Your task to perform on an android device: delete a single message in the gmail app Image 0: 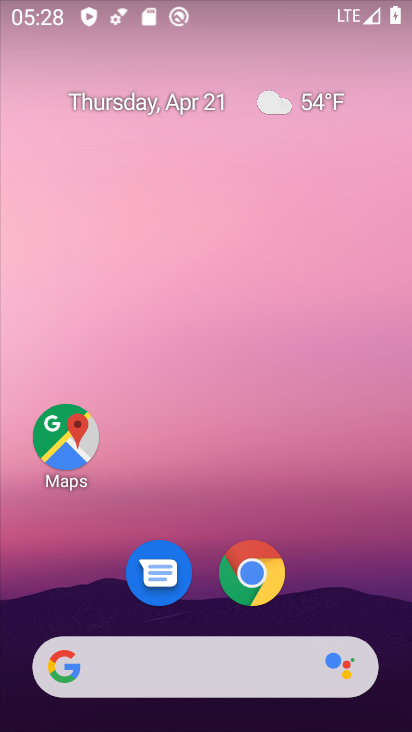
Step 0: drag from (361, 597) to (330, 101)
Your task to perform on an android device: delete a single message in the gmail app Image 1: 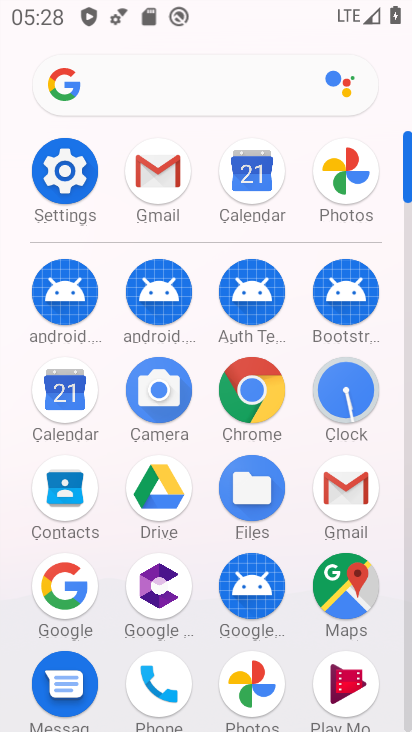
Step 1: click (336, 485)
Your task to perform on an android device: delete a single message in the gmail app Image 2: 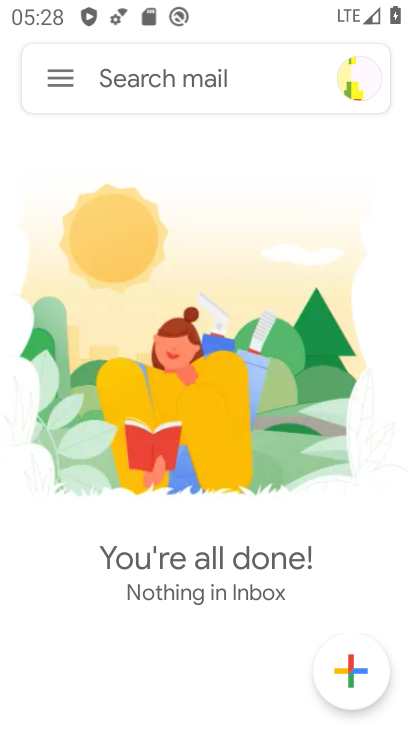
Step 2: click (52, 70)
Your task to perform on an android device: delete a single message in the gmail app Image 3: 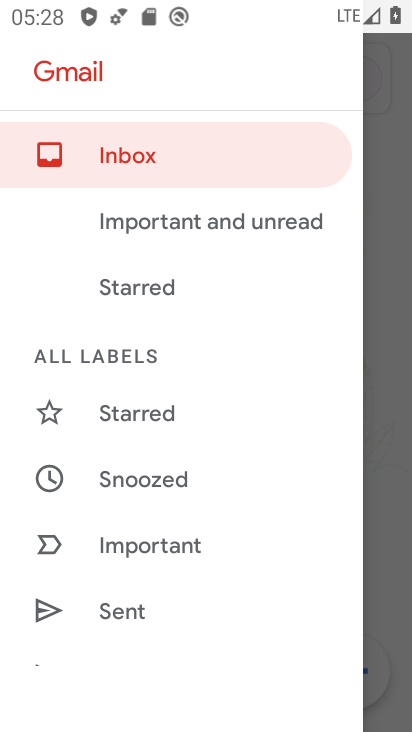
Step 3: click (149, 145)
Your task to perform on an android device: delete a single message in the gmail app Image 4: 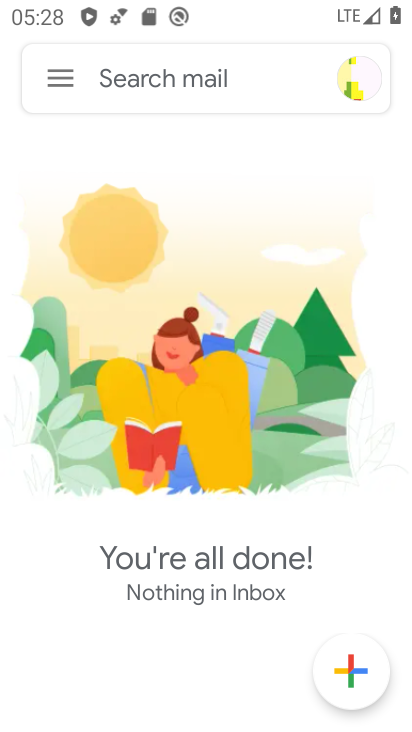
Step 4: task complete